Your task to perform on an android device: Show me productivity apps on the Play Store Image 0: 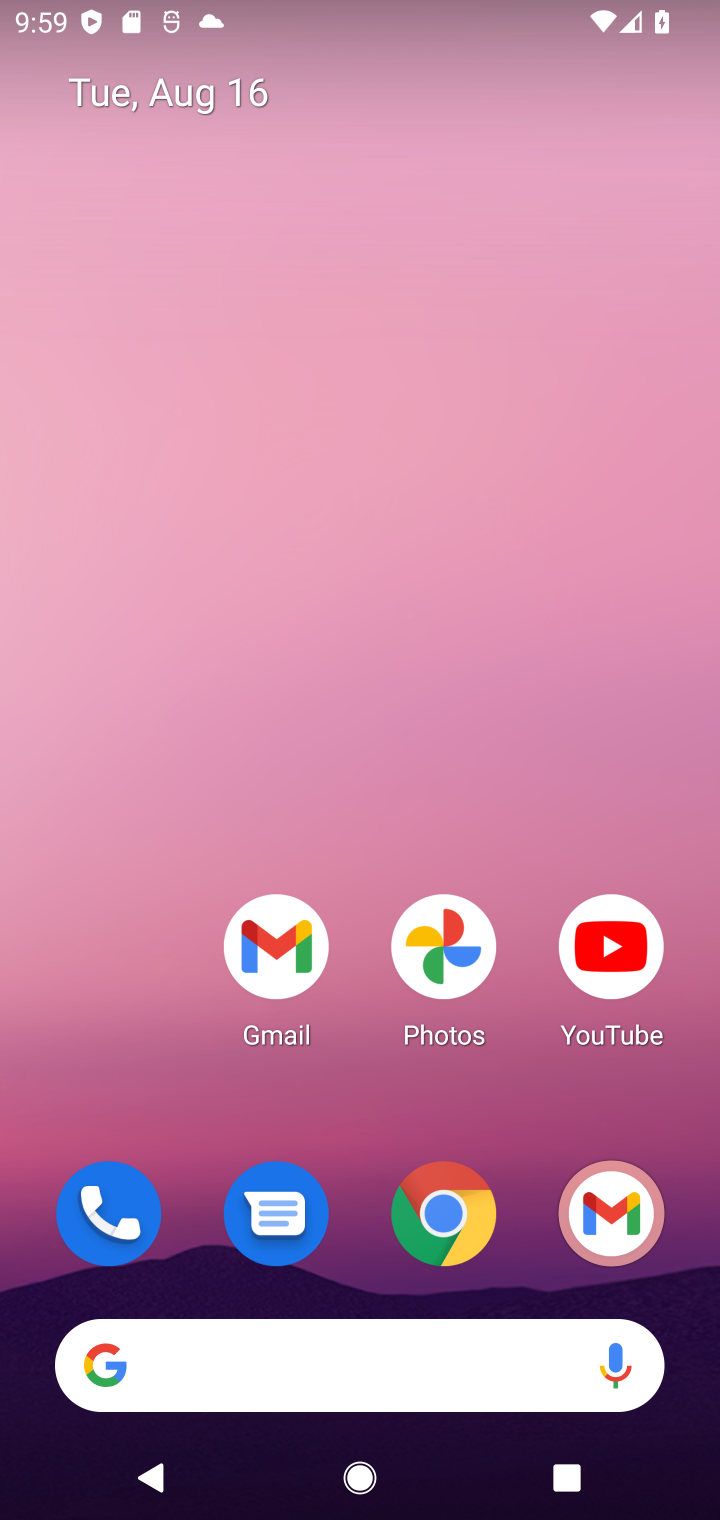
Step 0: drag from (291, 926) to (310, 405)
Your task to perform on an android device: Show me productivity apps on the Play Store Image 1: 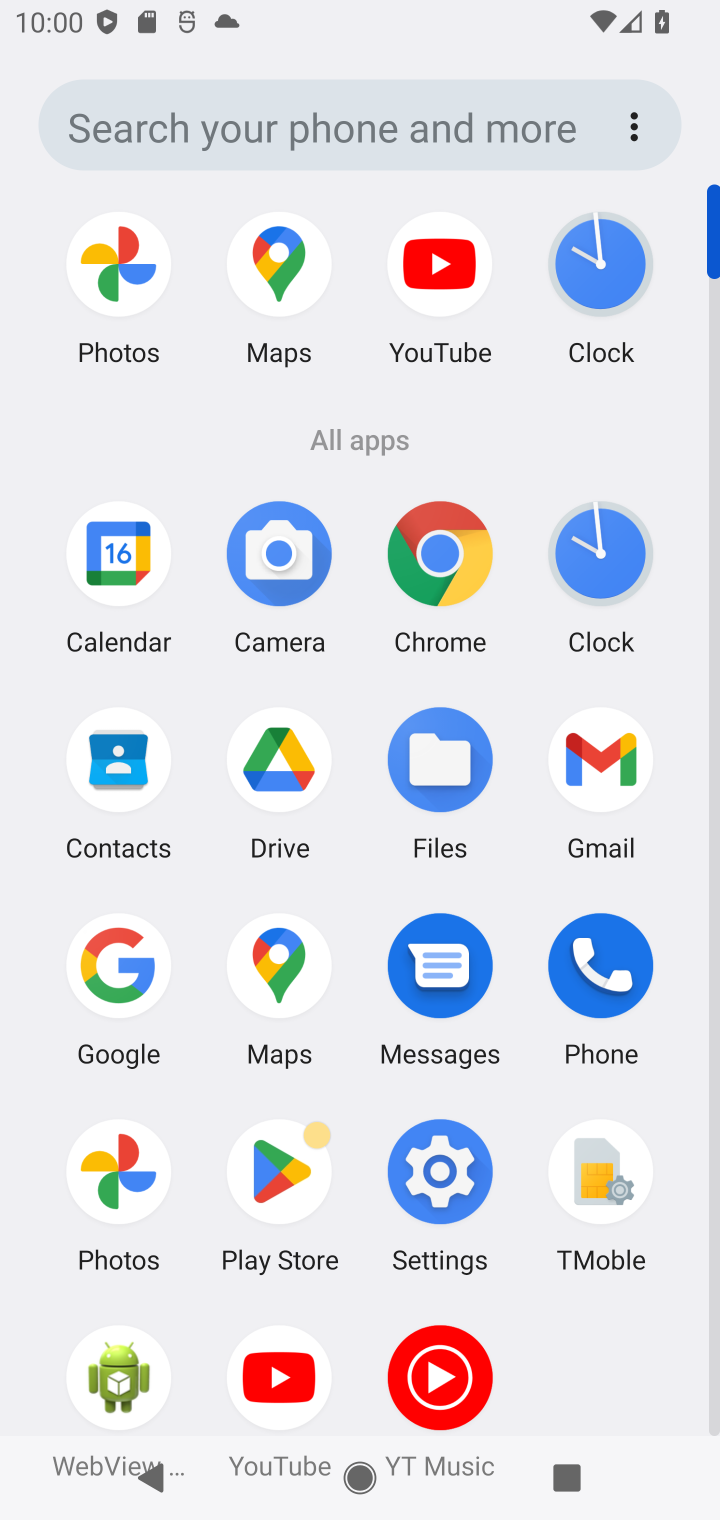
Step 1: click (297, 1170)
Your task to perform on an android device: Show me productivity apps on the Play Store Image 2: 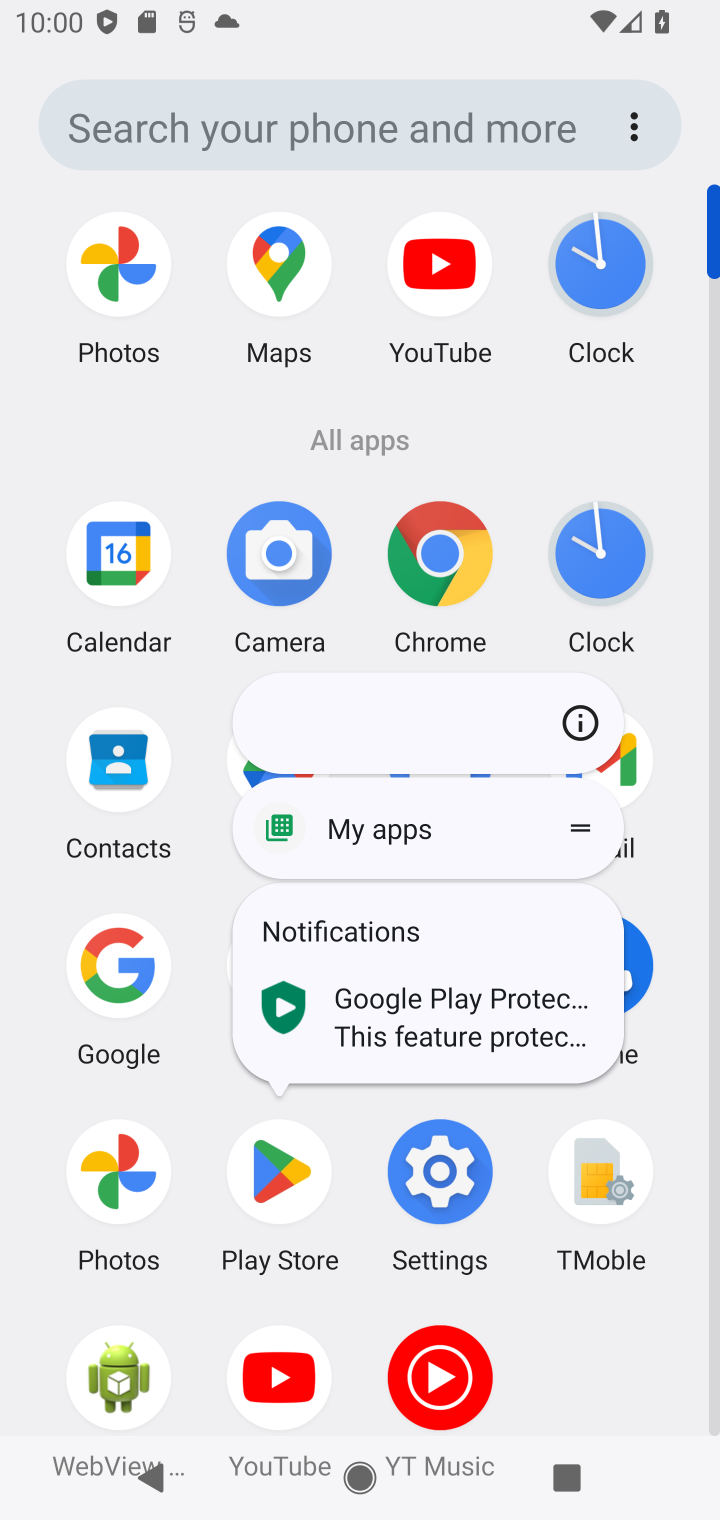
Step 2: click (297, 1170)
Your task to perform on an android device: Show me productivity apps on the Play Store Image 3: 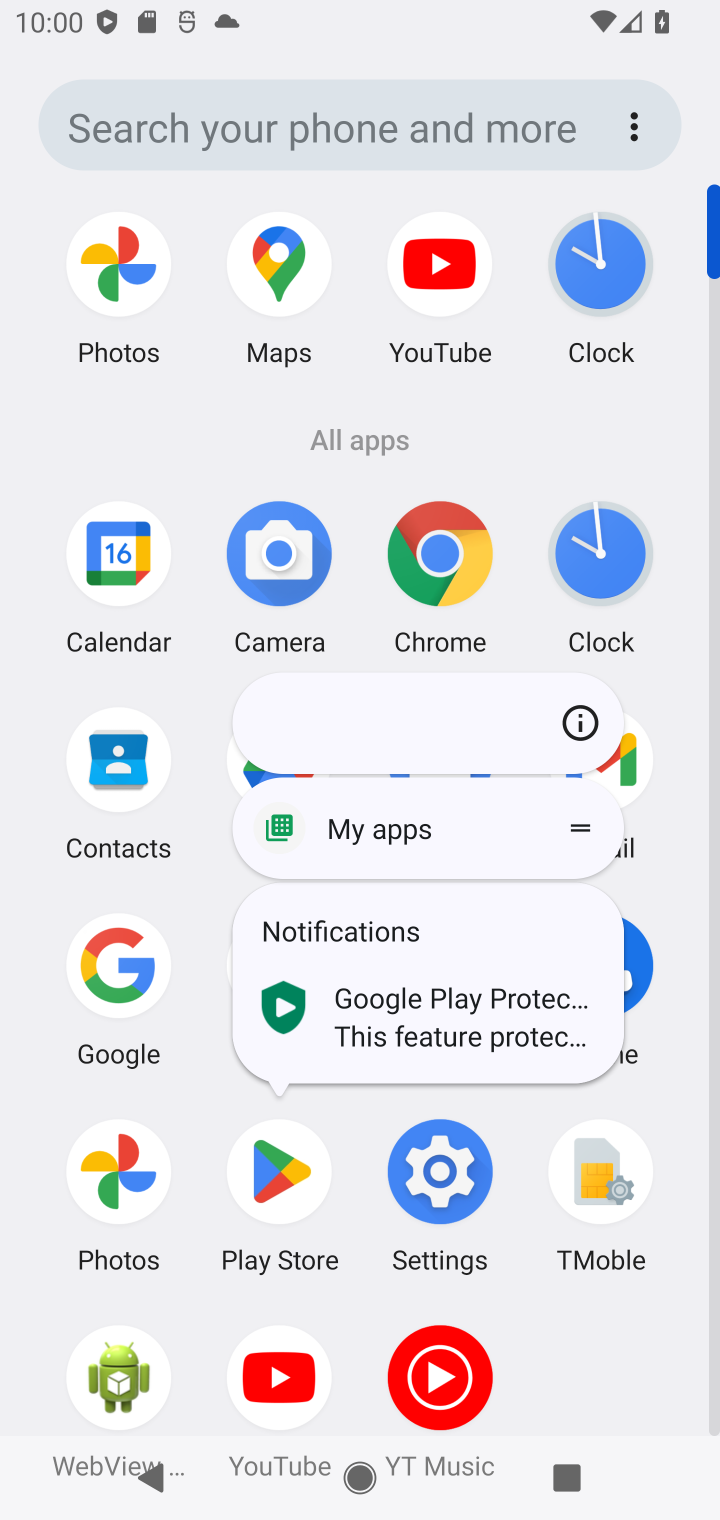
Step 3: click (289, 1173)
Your task to perform on an android device: Show me productivity apps on the Play Store Image 4: 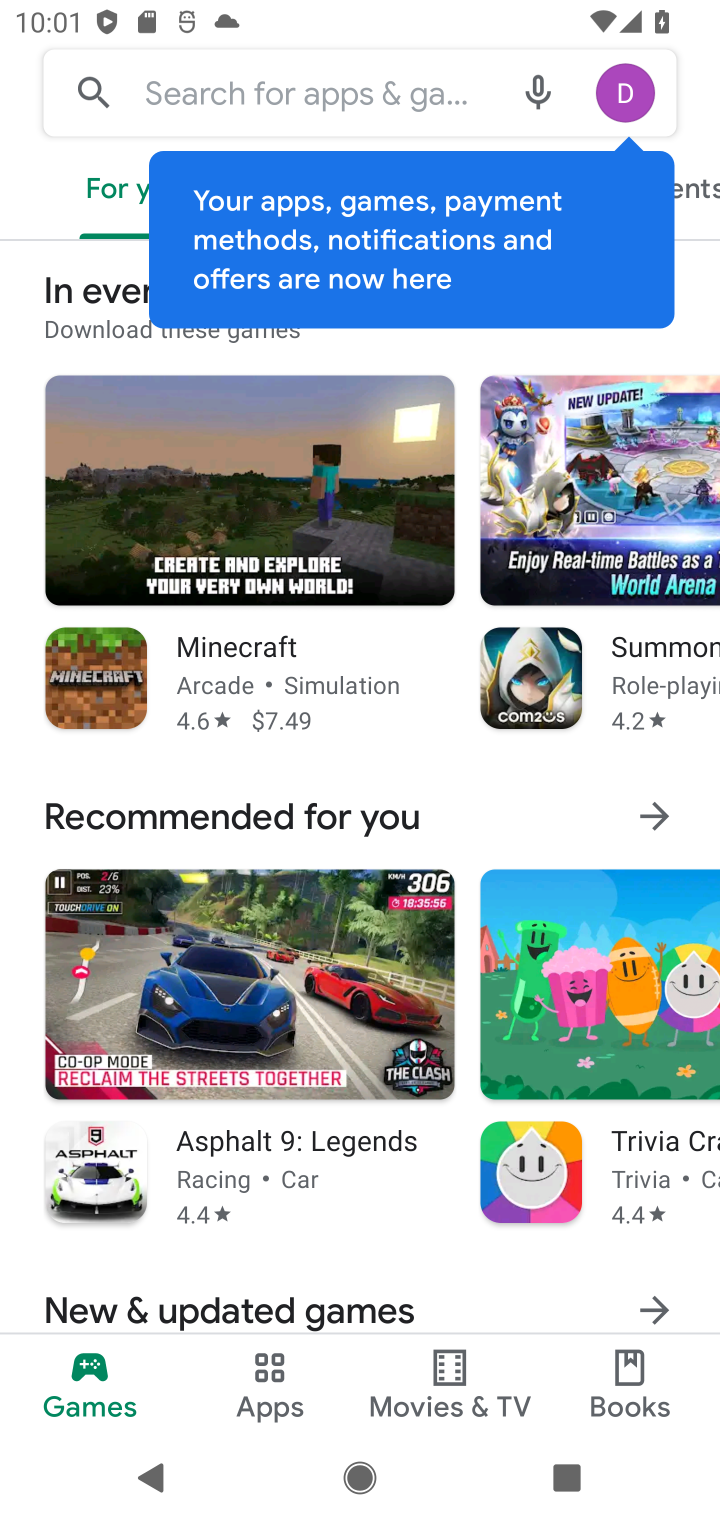
Step 4: click (291, 1392)
Your task to perform on an android device: Show me productivity apps on the Play Store Image 5: 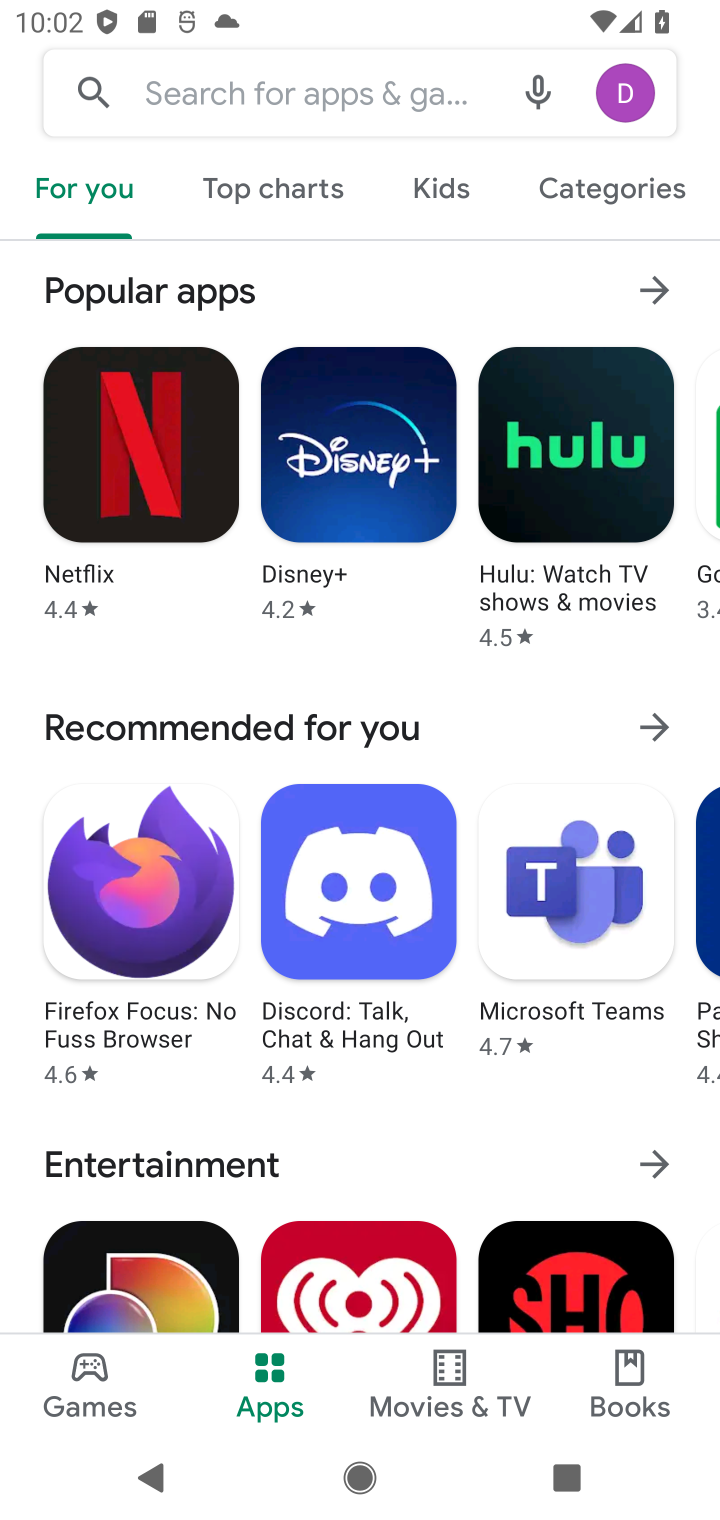
Step 5: task complete